Your task to perform on an android device: Open the stopwatch Image 0: 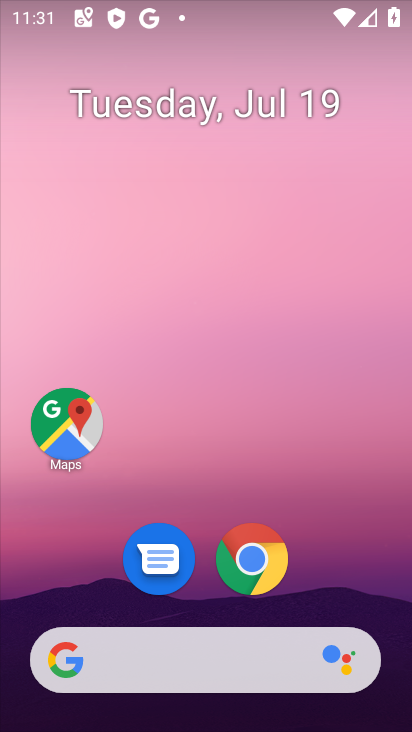
Step 0: drag from (156, 573) to (234, 13)
Your task to perform on an android device: Open the stopwatch Image 1: 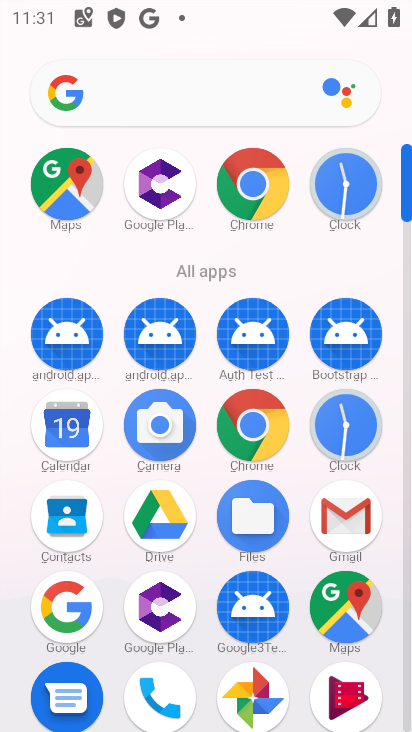
Step 1: click (354, 415)
Your task to perform on an android device: Open the stopwatch Image 2: 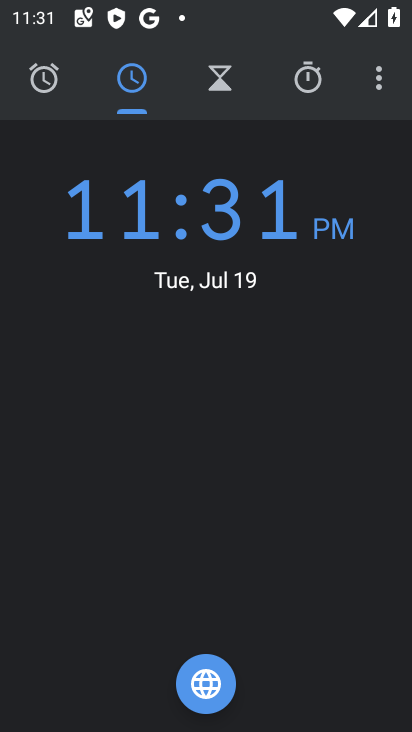
Step 2: click (303, 74)
Your task to perform on an android device: Open the stopwatch Image 3: 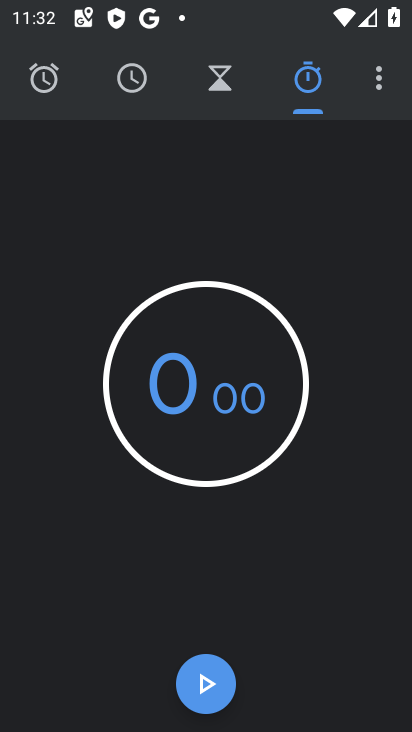
Step 3: click (211, 408)
Your task to perform on an android device: Open the stopwatch Image 4: 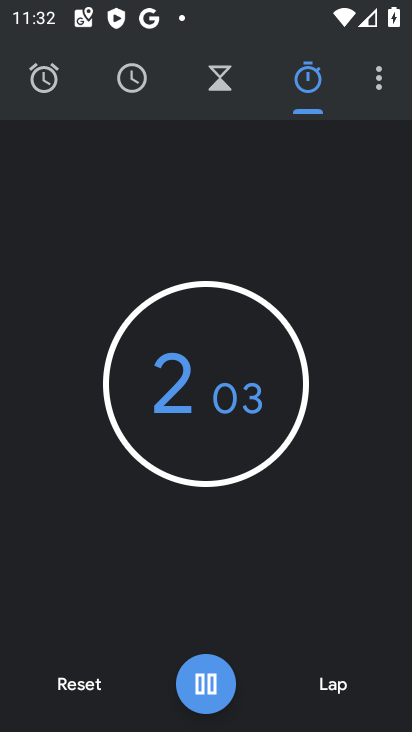
Step 4: click (211, 408)
Your task to perform on an android device: Open the stopwatch Image 5: 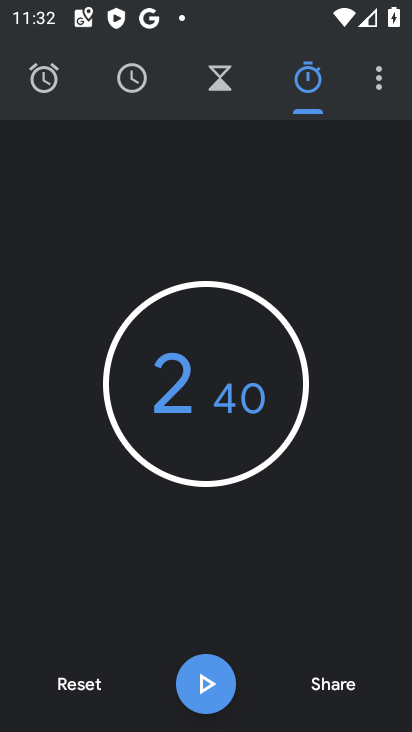
Step 5: task complete